Your task to perform on an android device: Go to Reddit.com Image 0: 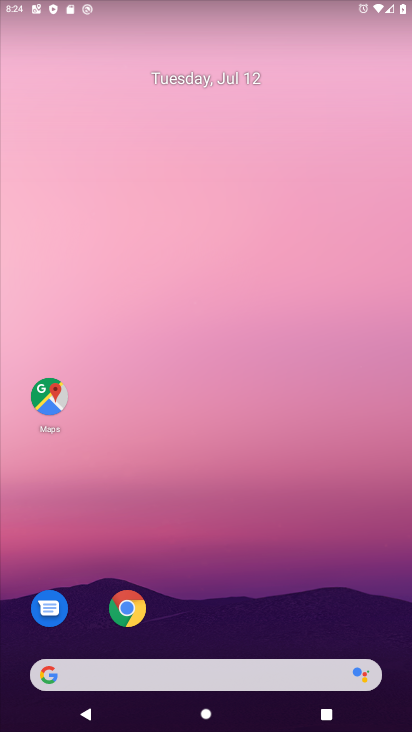
Step 0: click (133, 611)
Your task to perform on an android device: Go to Reddit.com Image 1: 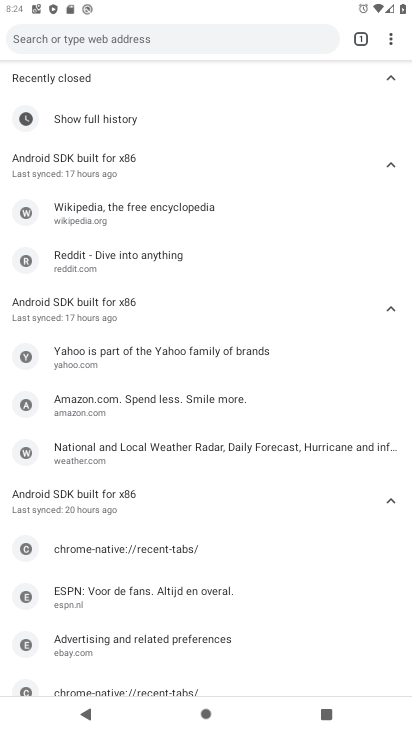
Step 1: click (160, 39)
Your task to perform on an android device: Go to Reddit.com Image 2: 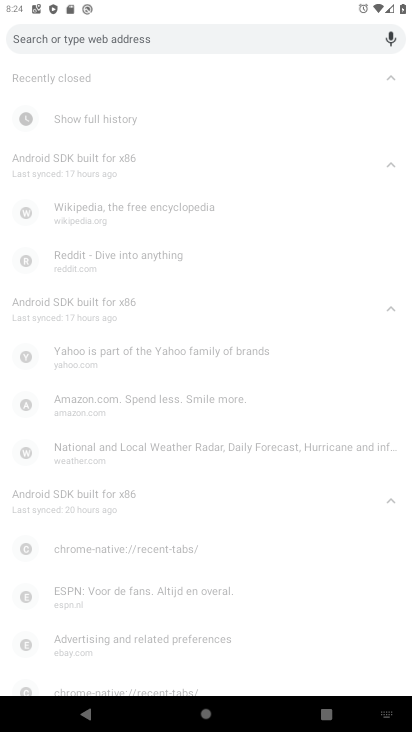
Step 2: type "Reddit.com"
Your task to perform on an android device: Go to Reddit.com Image 3: 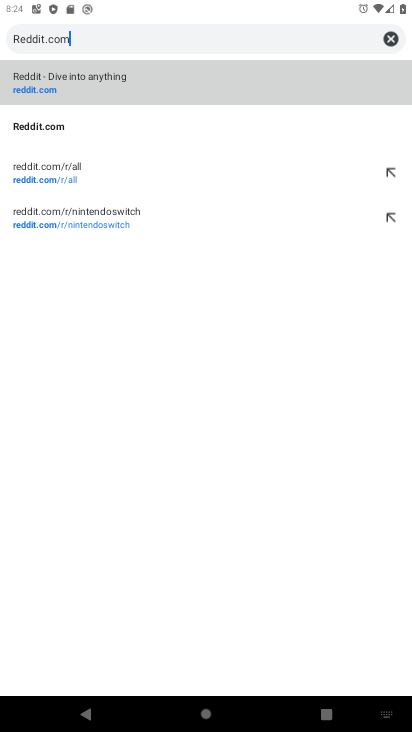
Step 3: click (64, 67)
Your task to perform on an android device: Go to Reddit.com Image 4: 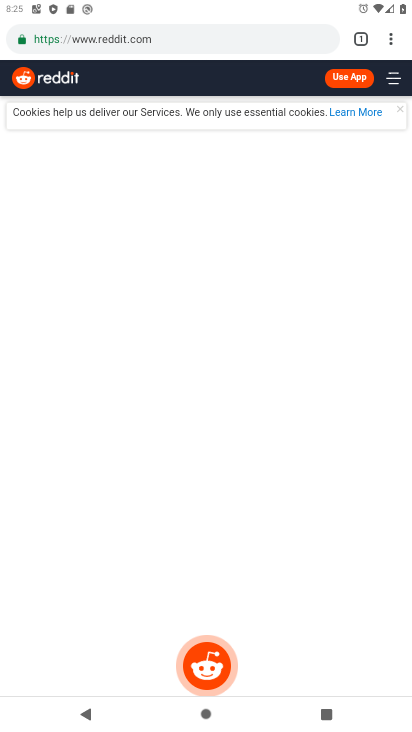
Step 4: task complete